Your task to perform on an android device: Open the contacts Image 0: 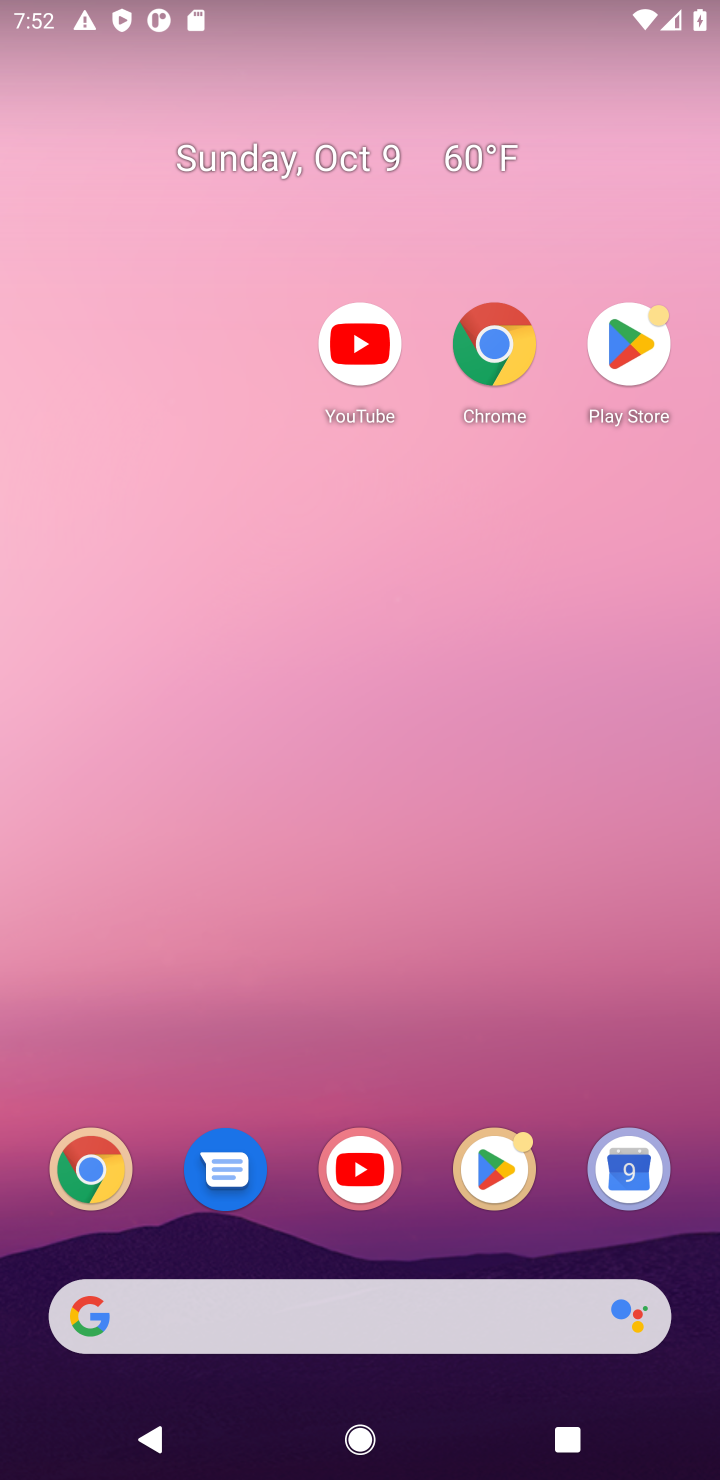
Step 0: drag from (433, 1257) to (444, 272)
Your task to perform on an android device: Open the contacts Image 1: 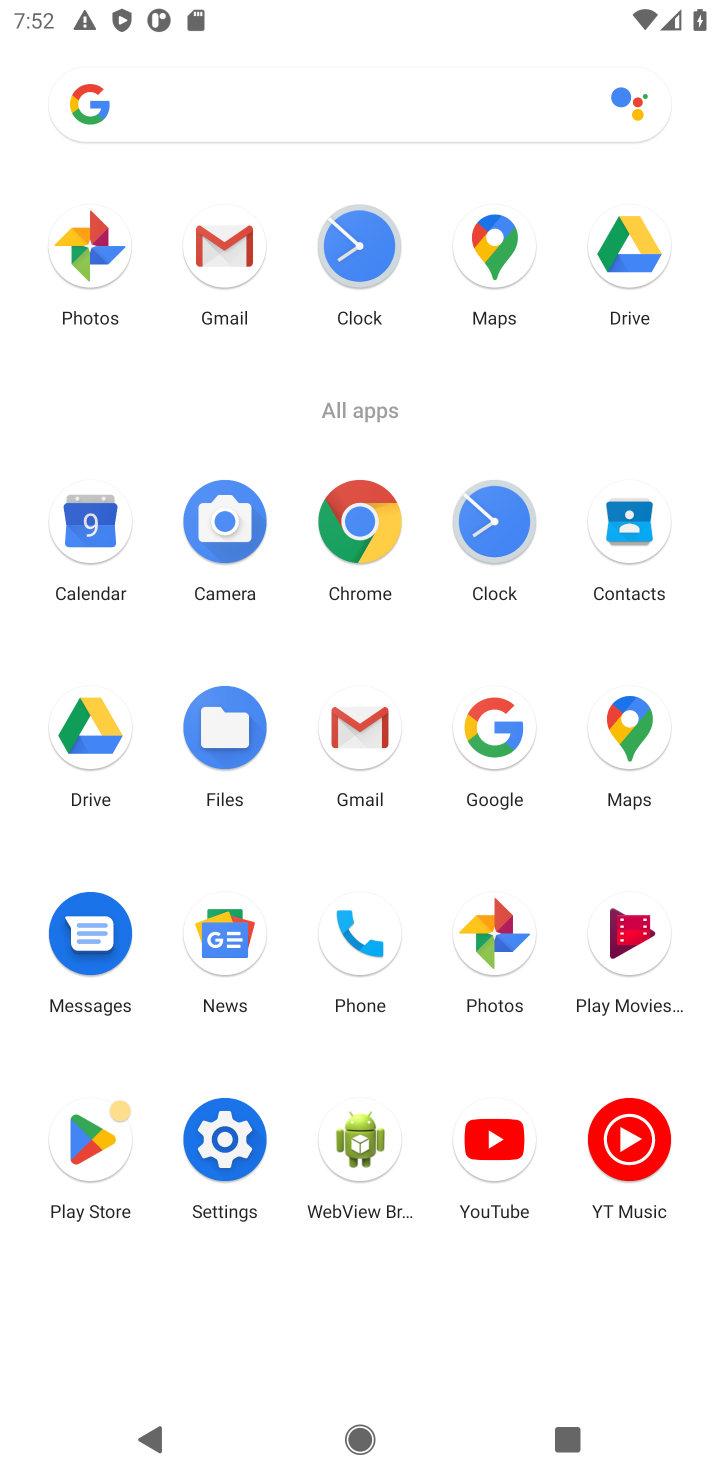
Step 1: click (636, 523)
Your task to perform on an android device: Open the contacts Image 2: 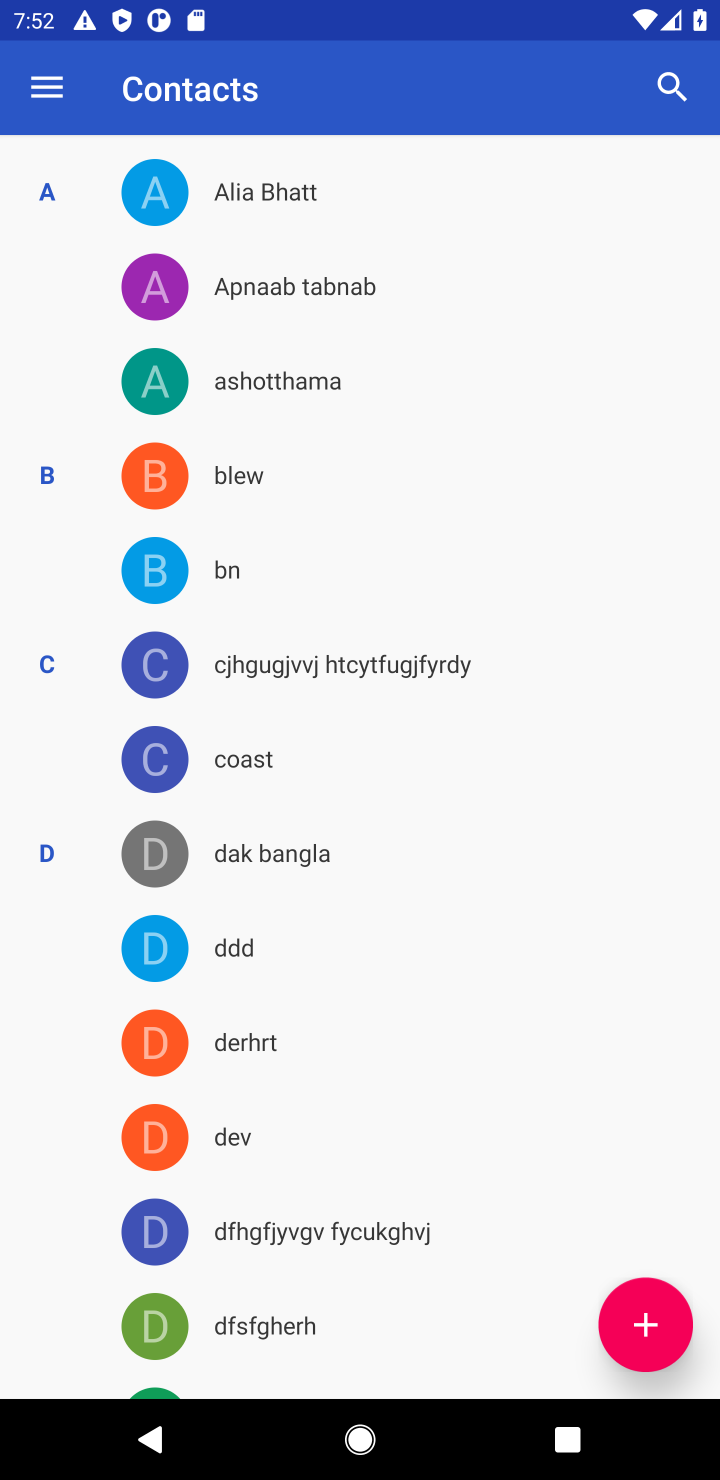
Step 2: task complete